Your task to perform on an android device: turn off notifications in google photos Image 0: 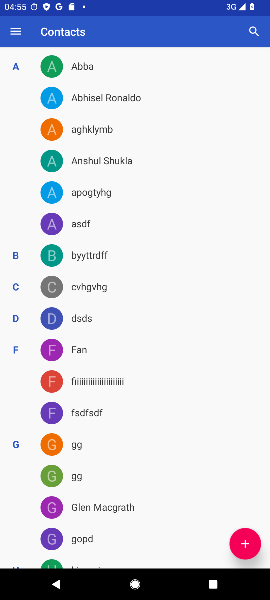
Step 0: press home button
Your task to perform on an android device: turn off notifications in google photos Image 1: 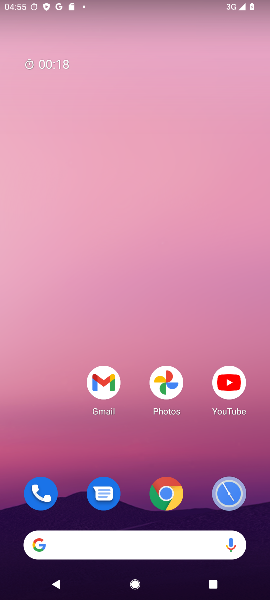
Step 1: drag from (56, 449) to (45, 78)
Your task to perform on an android device: turn off notifications in google photos Image 2: 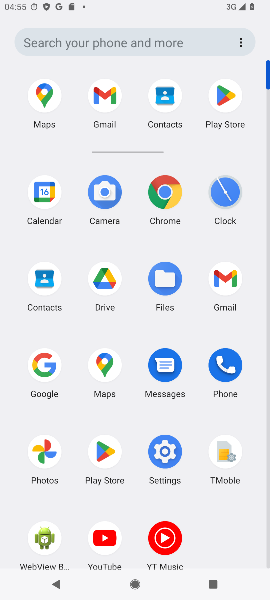
Step 2: click (39, 463)
Your task to perform on an android device: turn off notifications in google photos Image 3: 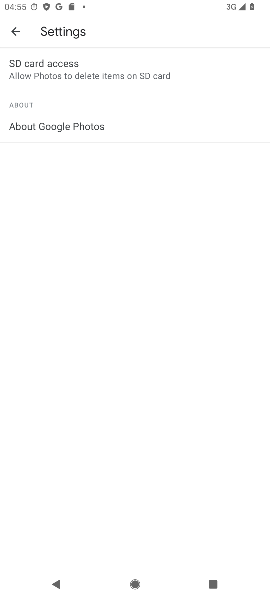
Step 3: press back button
Your task to perform on an android device: turn off notifications in google photos Image 4: 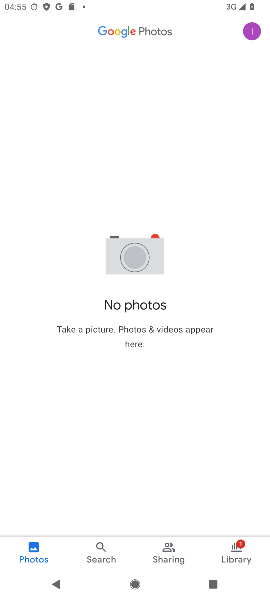
Step 4: click (248, 26)
Your task to perform on an android device: turn off notifications in google photos Image 5: 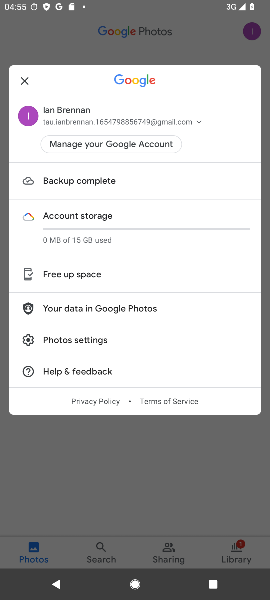
Step 5: click (108, 345)
Your task to perform on an android device: turn off notifications in google photos Image 6: 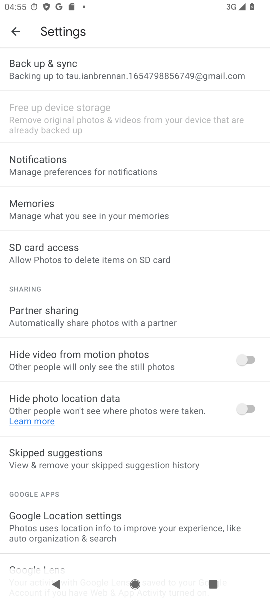
Step 6: click (103, 165)
Your task to perform on an android device: turn off notifications in google photos Image 7: 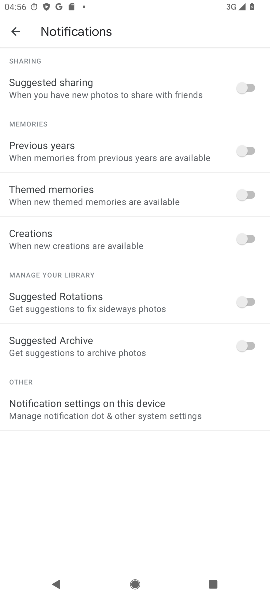
Step 7: click (140, 408)
Your task to perform on an android device: turn off notifications in google photos Image 8: 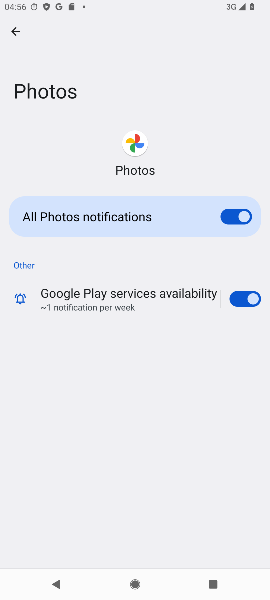
Step 8: click (232, 213)
Your task to perform on an android device: turn off notifications in google photos Image 9: 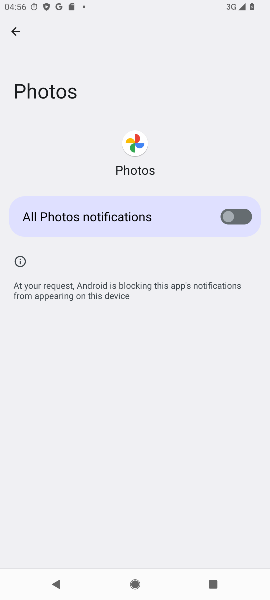
Step 9: task complete